Your task to perform on an android device: Open calendar and show me the fourth week of next month Image 0: 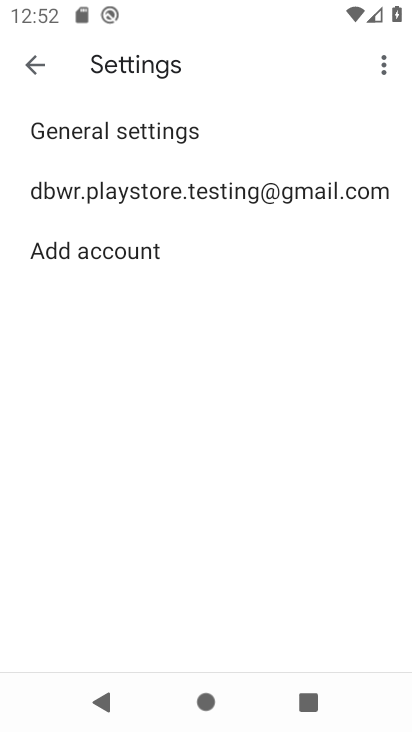
Step 0: press home button
Your task to perform on an android device: Open calendar and show me the fourth week of next month Image 1: 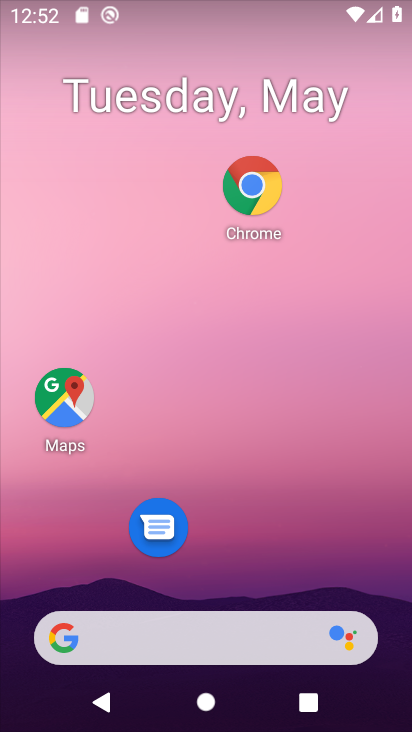
Step 1: drag from (249, 533) to (148, 156)
Your task to perform on an android device: Open calendar and show me the fourth week of next month Image 2: 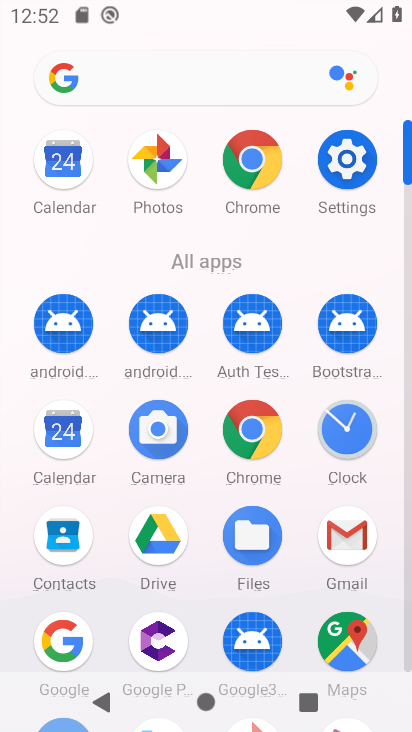
Step 2: click (48, 423)
Your task to perform on an android device: Open calendar and show me the fourth week of next month Image 3: 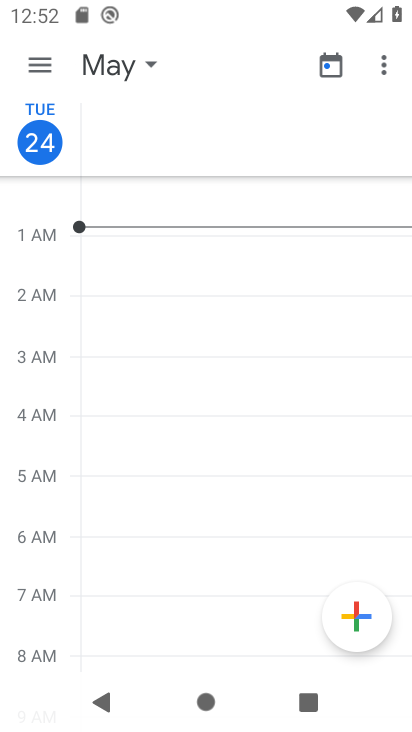
Step 3: click (47, 58)
Your task to perform on an android device: Open calendar and show me the fourth week of next month Image 4: 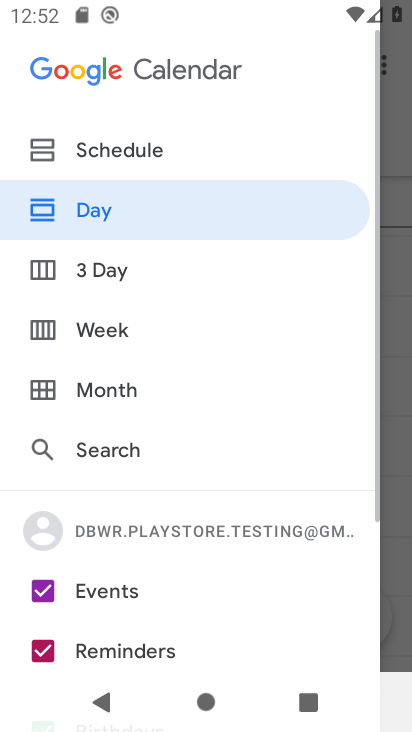
Step 4: click (107, 322)
Your task to perform on an android device: Open calendar and show me the fourth week of next month Image 5: 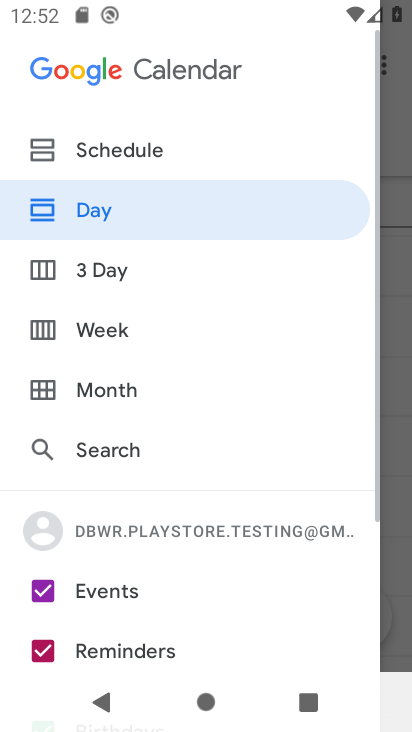
Step 5: click (103, 324)
Your task to perform on an android device: Open calendar and show me the fourth week of next month Image 6: 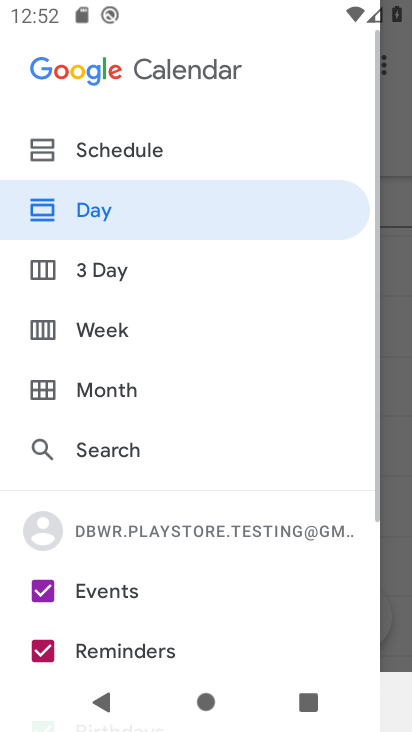
Step 6: click (103, 324)
Your task to perform on an android device: Open calendar and show me the fourth week of next month Image 7: 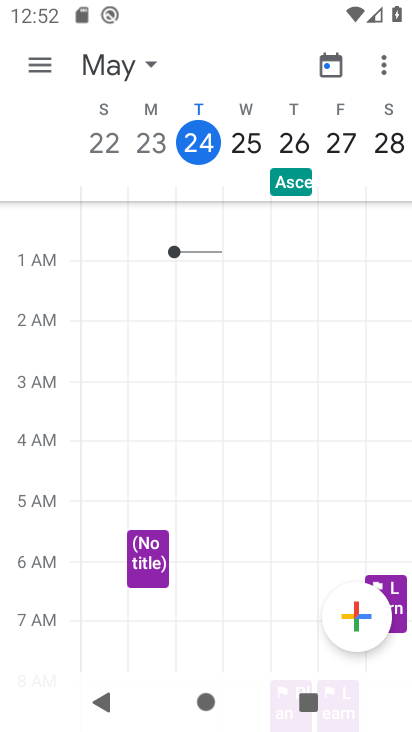
Step 7: click (136, 54)
Your task to perform on an android device: Open calendar and show me the fourth week of next month Image 8: 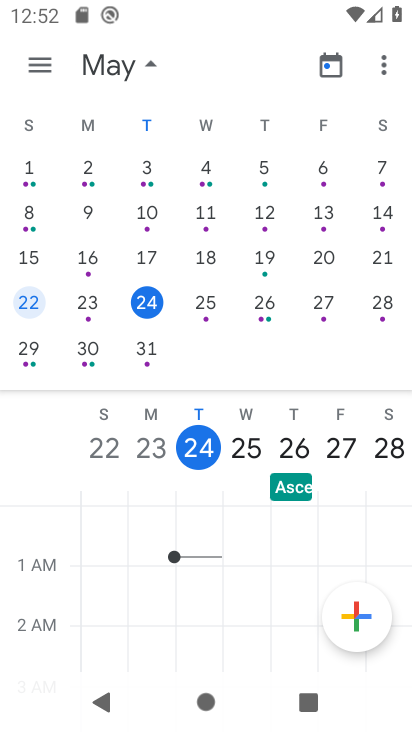
Step 8: drag from (321, 271) to (2, 193)
Your task to perform on an android device: Open calendar and show me the fourth week of next month Image 9: 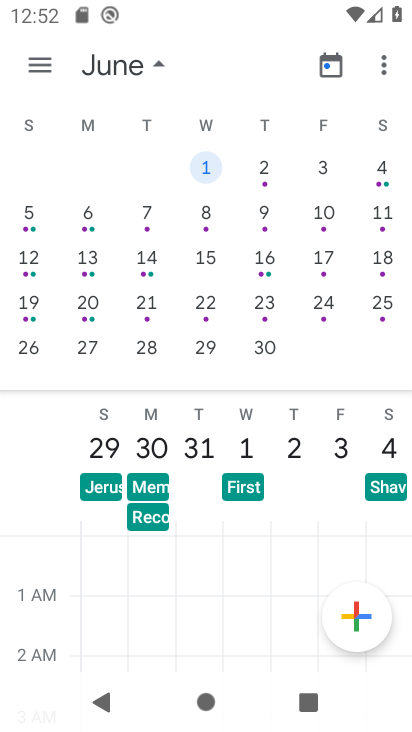
Step 9: click (204, 299)
Your task to perform on an android device: Open calendar and show me the fourth week of next month Image 10: 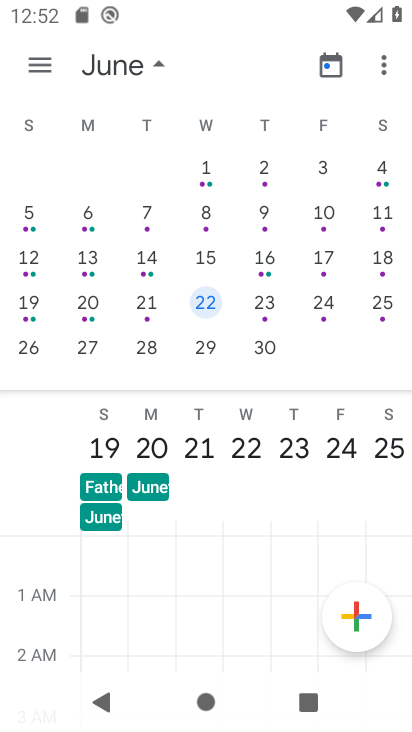
Step 10: click (254, 316)
Your task to perform on an android device: Open calendar and show me the fourth week of next month Image 11: 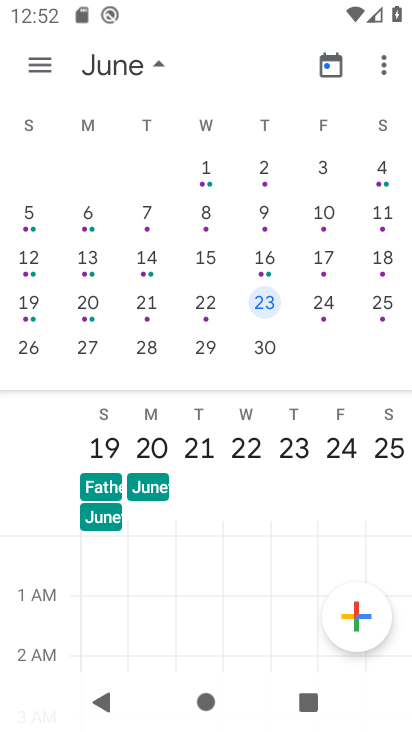
Step 11: task complete